Your task to perform on an android device: Open Android settings Image 0: 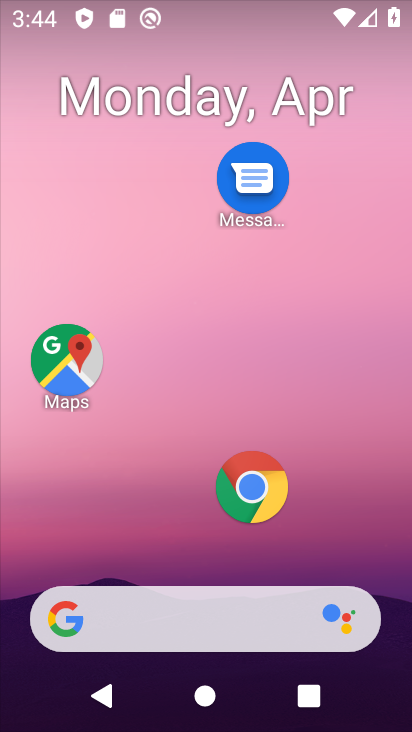
Step 0: drag from (164, 546) to (207, 10)
Your task to perform on an android device: Open Android settings Image 1: 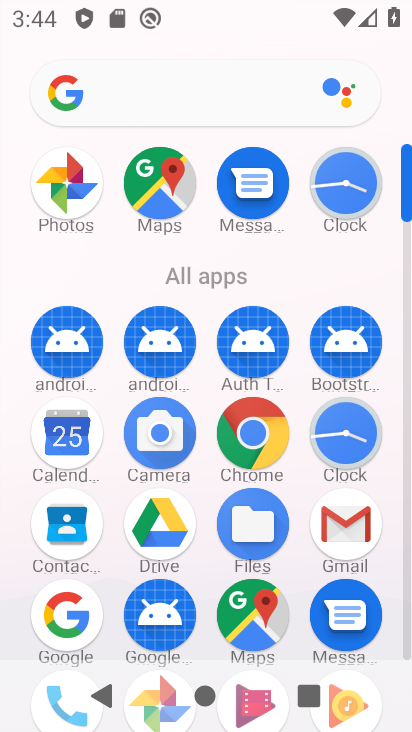
Step 1: drag from (195, 581) to (246, 218)
Your task to perform on an android device: Open Android settings Image 2: 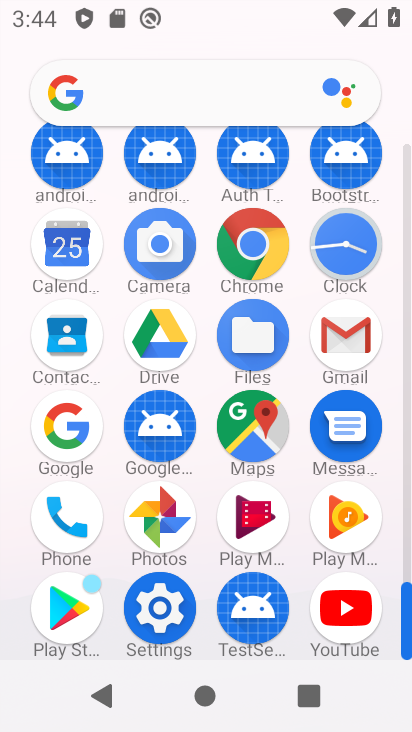
Step 2: click (164, 620)
Your task to perform on an android device: Open Android settings Image 3: 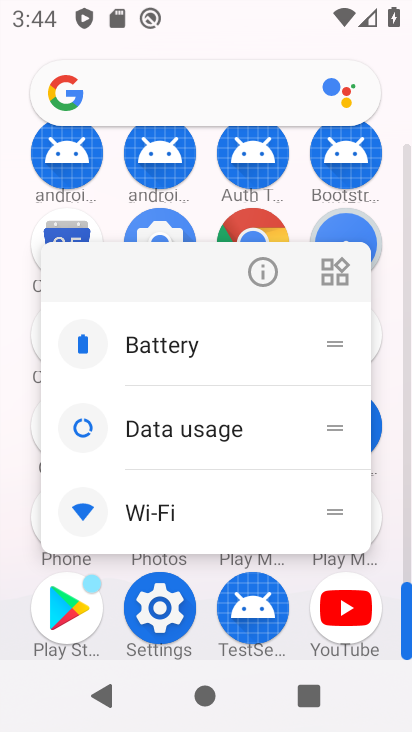
Step 3: click (159, 603)
Your task to perform on an android device: Open Android settings Image 4: 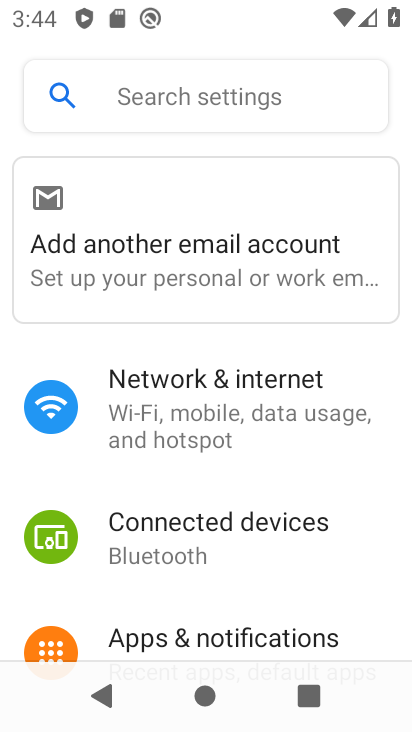
Step 4: drag from (215, 450) to (311, 42)
Your task to perform on an android device: Open Android settings Image 5: 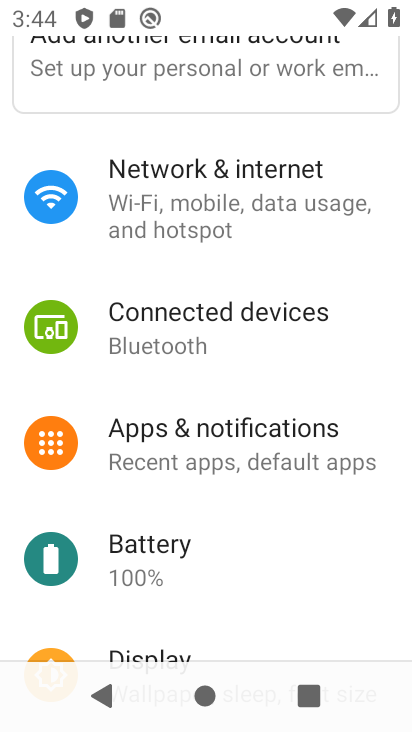
Step 5: drag from (233, 518) to (339, 10)
Your task to perform on an android device: Open Android settings Image 6: 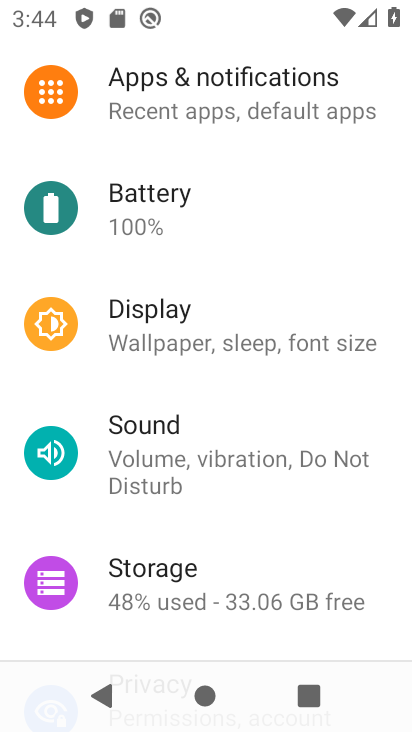
Step 6: drag from (225, 548) to (345, 3)
Your task to perform on an android device: Open Android settings Image 7: 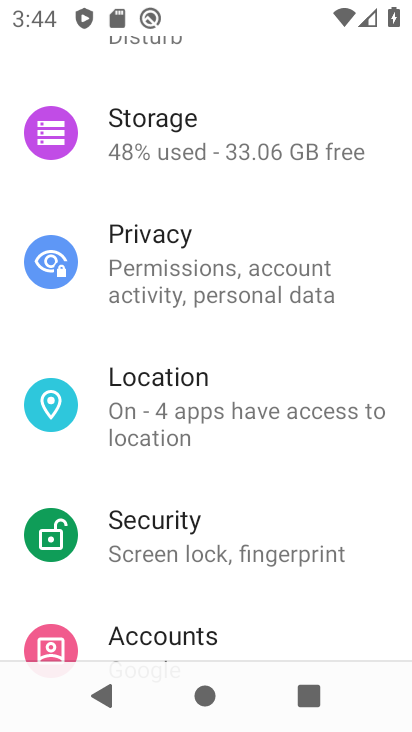
Step 7: drag from (245, 497) to (275, 130)
Your task to perform on an android device: Open Android settings Image 8: 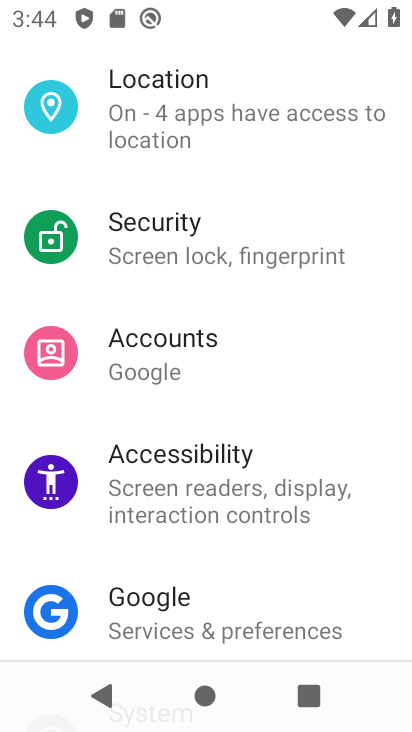
Step 8: drag from (225, 559) to (332, 11)
Your task to perform on an android device: Open Android settings Image 9: 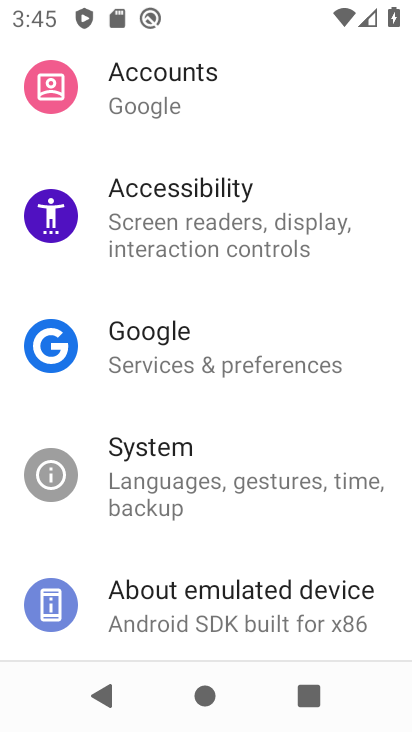
Step 9: click (209, 592)
Your task to perform on an android device: Open Android settings Image 10: 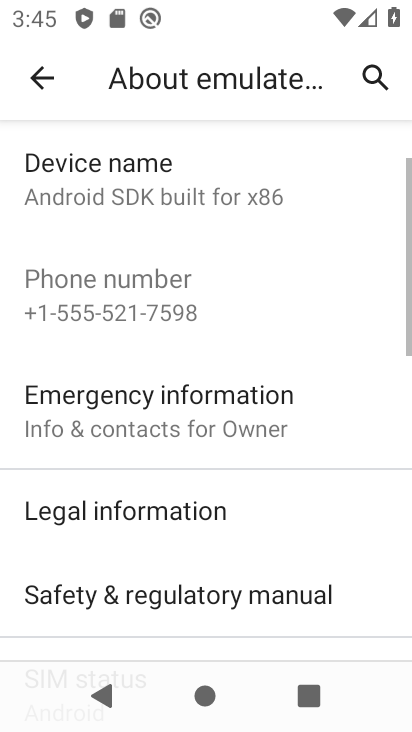
Step 10: drag from (198, 585) to (299, 53)
Your task to perform on an android device: Open Android settings Image 11: 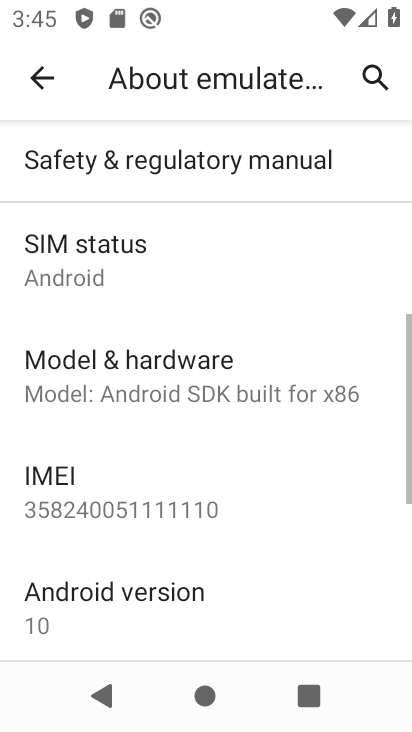
Step 11: click (143, 600)
Your task to perform on an android device: Open Android settings Image 12: 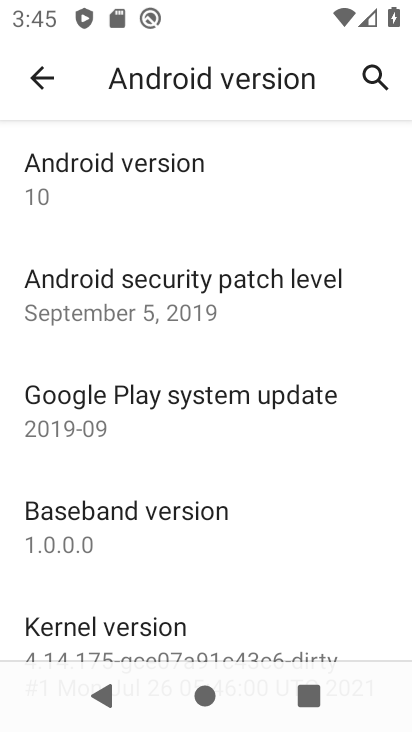
Step 12: task complete